Your task to perform on an android device: open wifi settings Image 0: 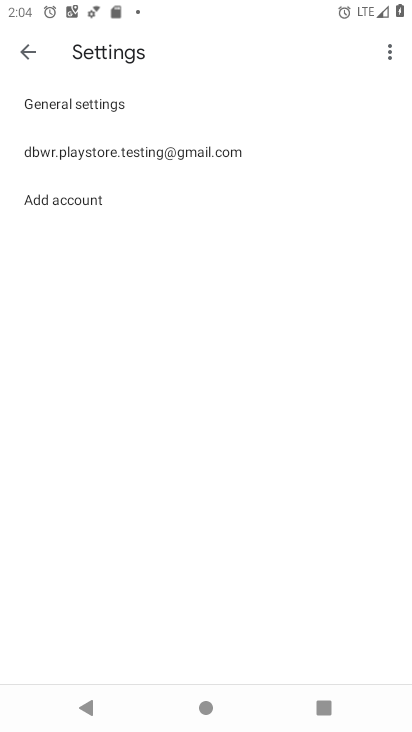
Step 0: click (280, 511)
Your task to perform on an android device: open wifi settings Image 1: 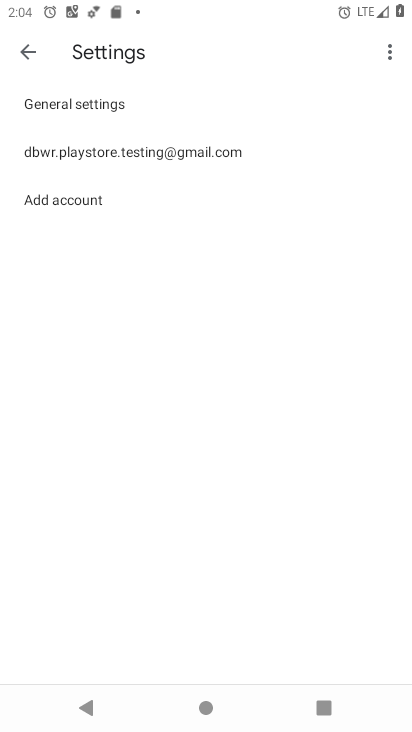
Step 1: press home button
Your task to perform on an android device: open wifi settings Image 2: 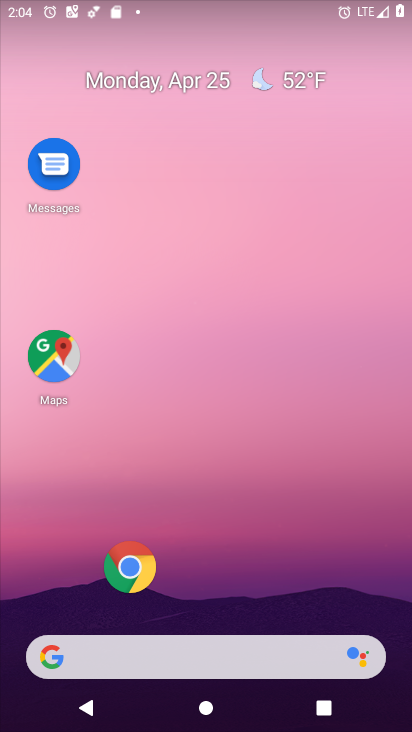
Step 2: drag from (176, 541) to (226, 229)
Your task to perform on an android device: open wifi settings Image 3: 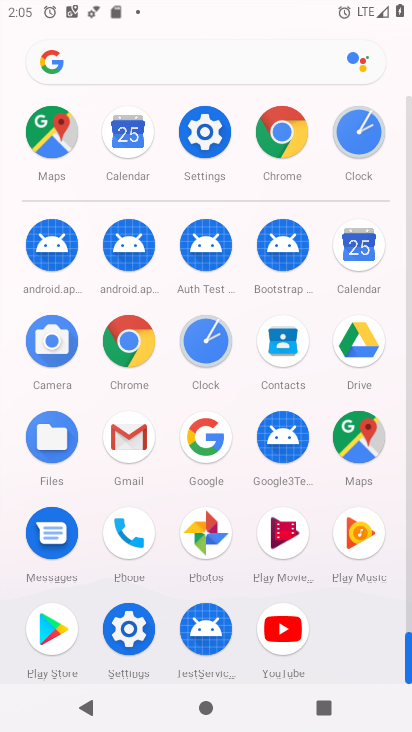
Step 3: click (208, 148)
Your task to perform on an android device: open wifi settings Image 4: 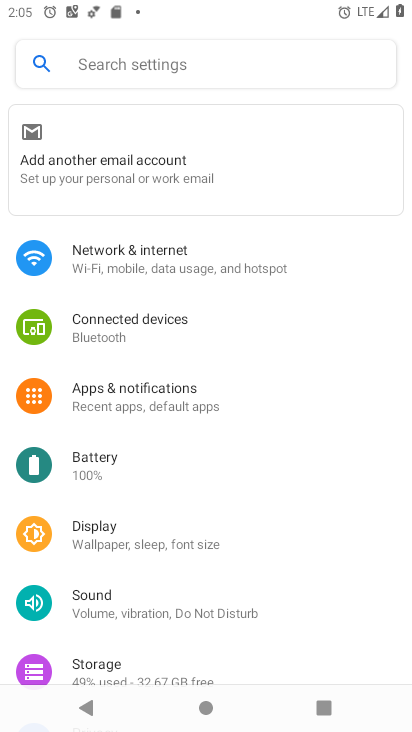
Step 4: click (174, 244)
Your task to perform on an android device: open wifi settings Image 5: 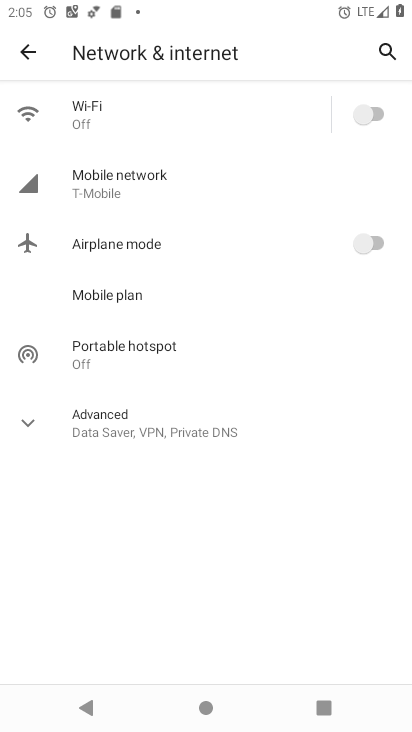
Step 5: click (179, 115)
Your task to perform on an android device: open wifi settings Image 6: 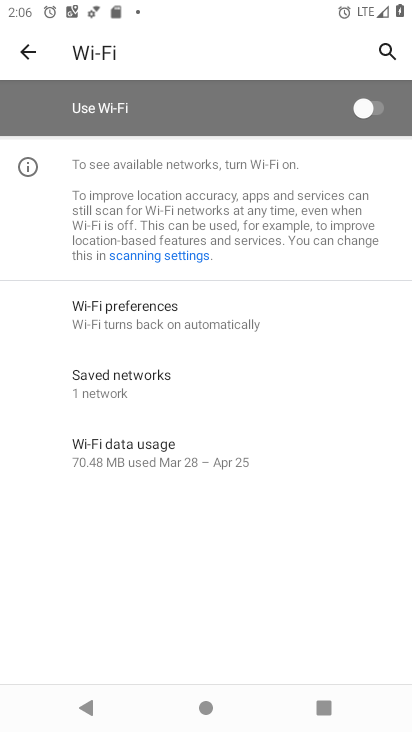
Step 6: task complete